Your task to perform on an android device: Go to location settings Image 0: 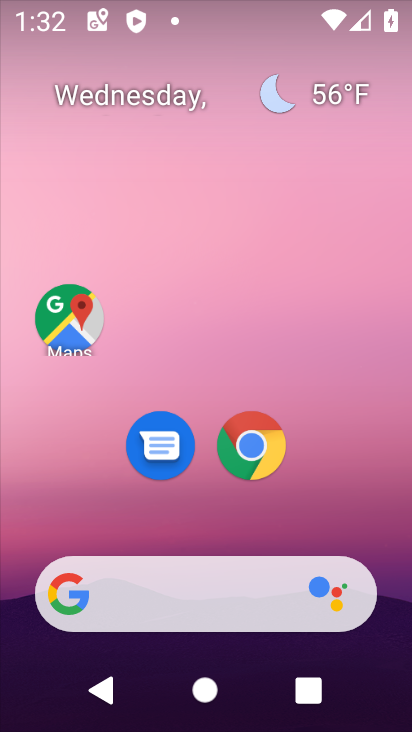
Step 0: drag from (237, 541) to (238, 1)
Your task to perform on an android device: Go to location settings Image 1: 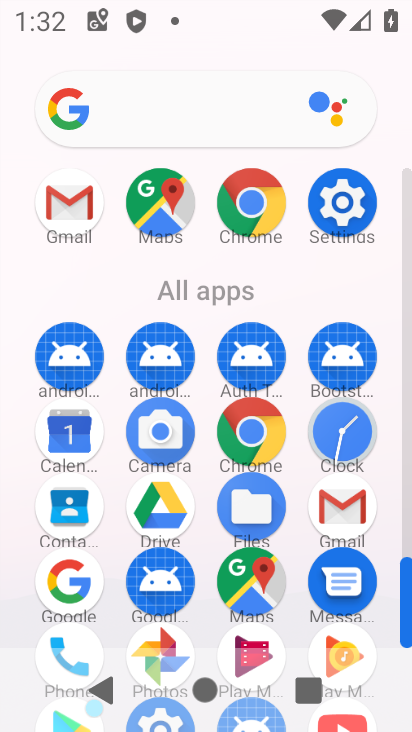
Step 1: click (338, 210)
Your task to perform on an android device: Go to location settings Image 2: 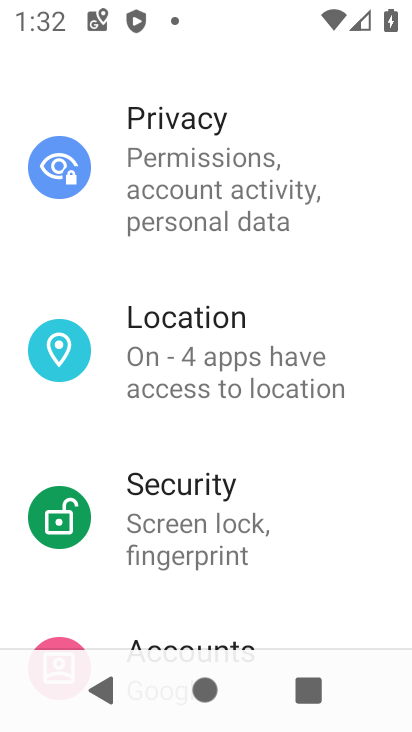
Step 2: click (187, 326)
Your task to perform on an android device: Go to location settings Image 3: 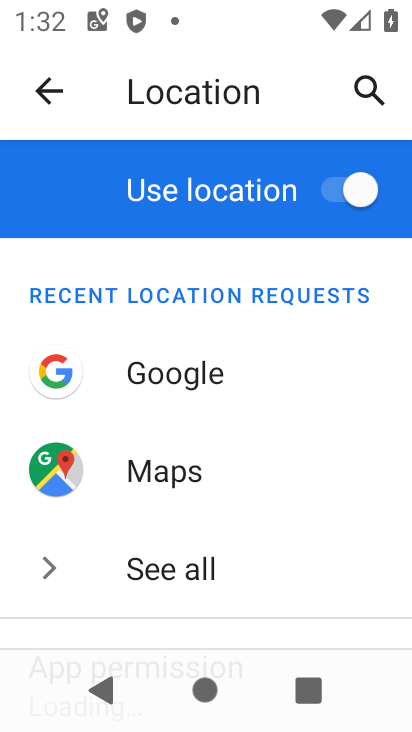
Step 3: task complete